Your task to perform on an android device: Search for hotels in Chicago Image 0: 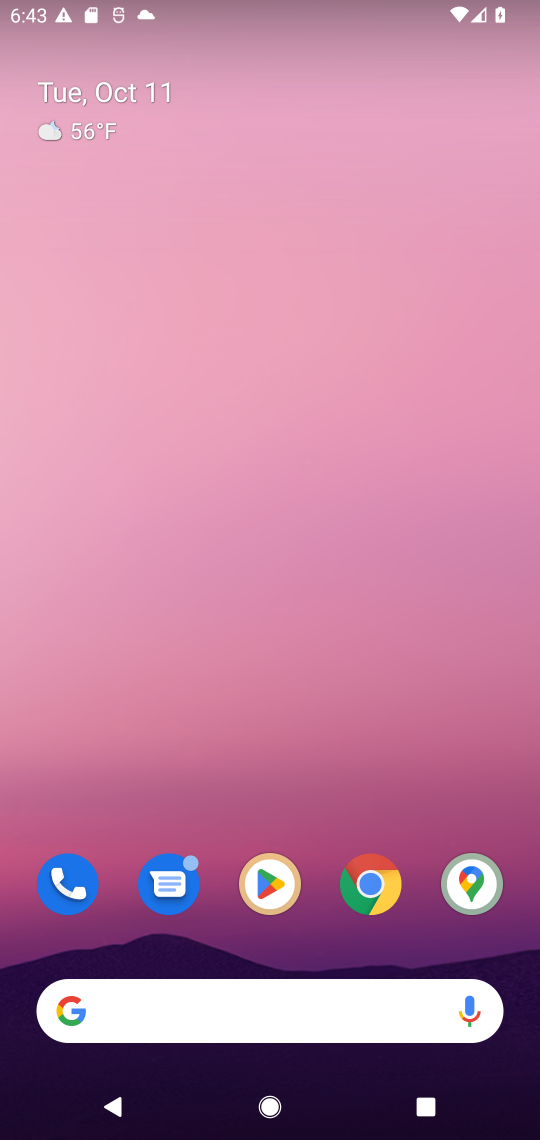
Step 0: drag from (323, 902) to (318, 16)
Your task to perform on an android device: Search for hotels in Chicago Image 1: 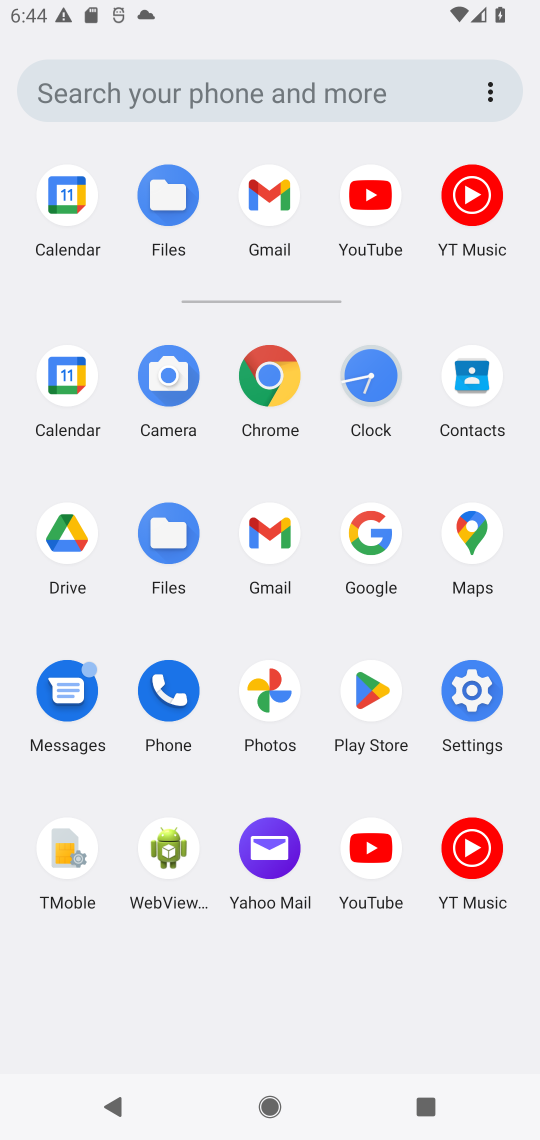
Step 1: click (267, 365)
Your task to perform on an android device: Search for hotels in Chicago Image 2: 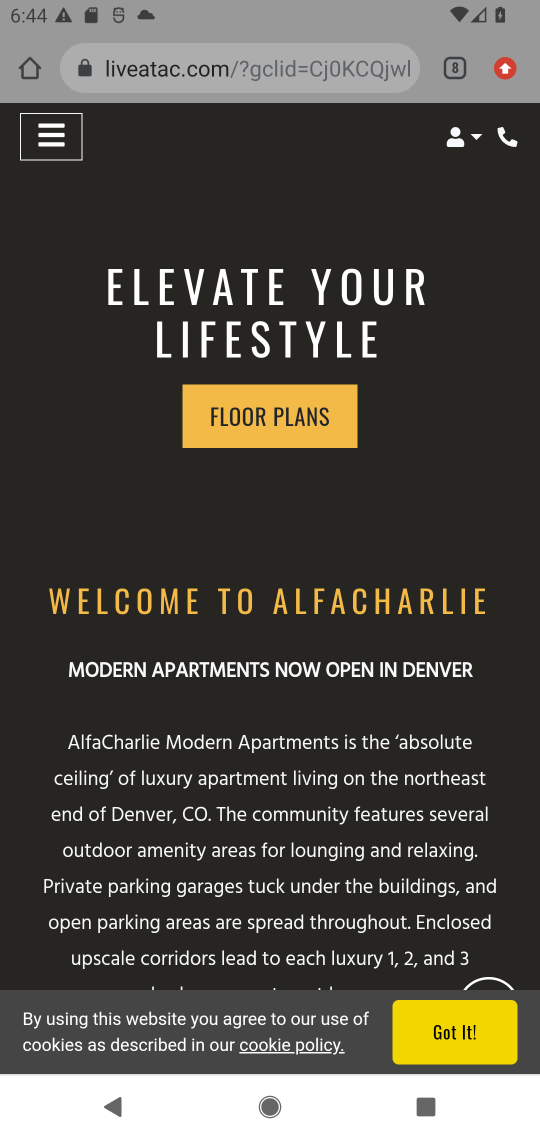
Step 2: drag from (510, 72) to (344, 224)
Your task to perform on an android device: Search for hotels in Chicago Image 3: 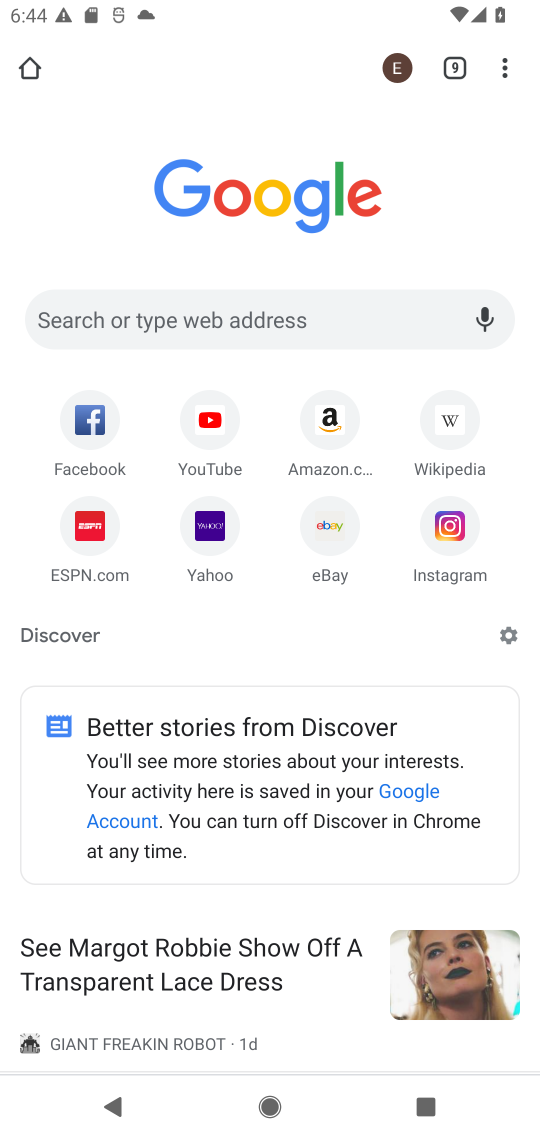
Step 3: click (285, 314)
Your task to perform on an android device: Search for hotels in Chicago Image 4: 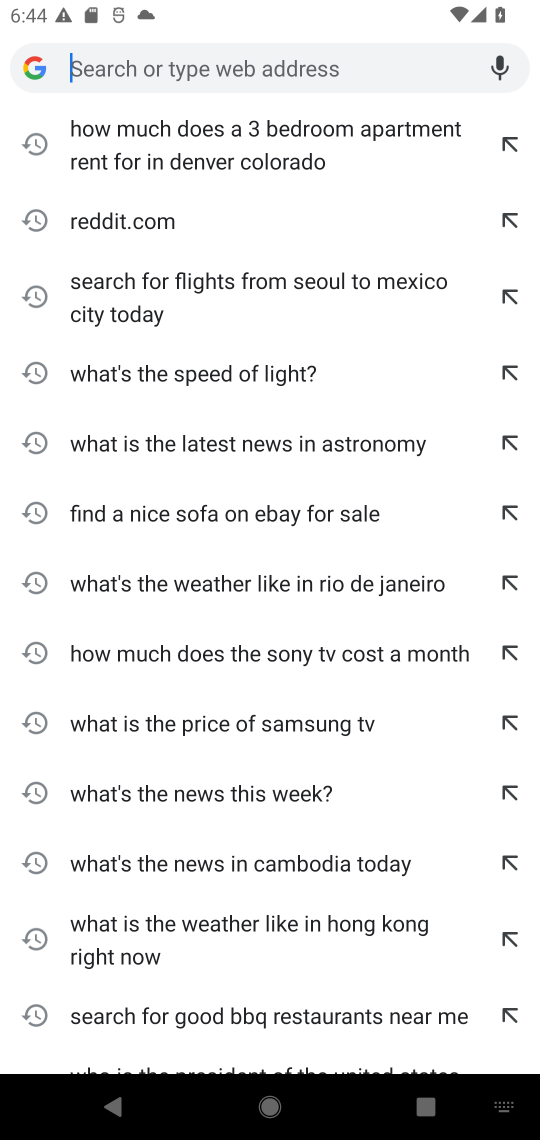
Step 4: type "hotels in Chicago"
Your task to perform on an android device: Search for hotels in Chicago Image 5: 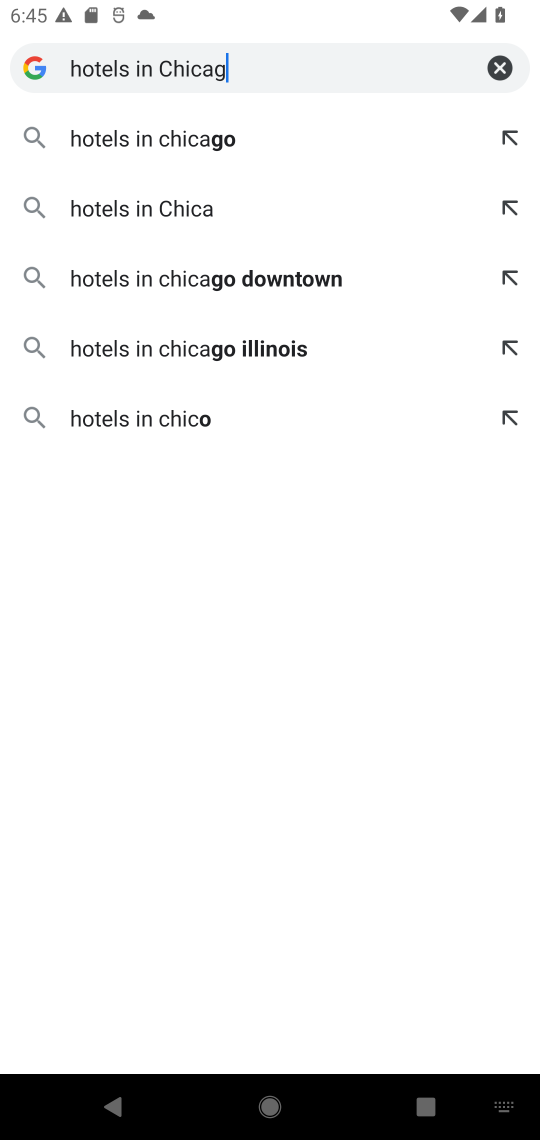
Step 5: type ""
Your task to perform on an android device: Search for hotels in Chicago Image 6: 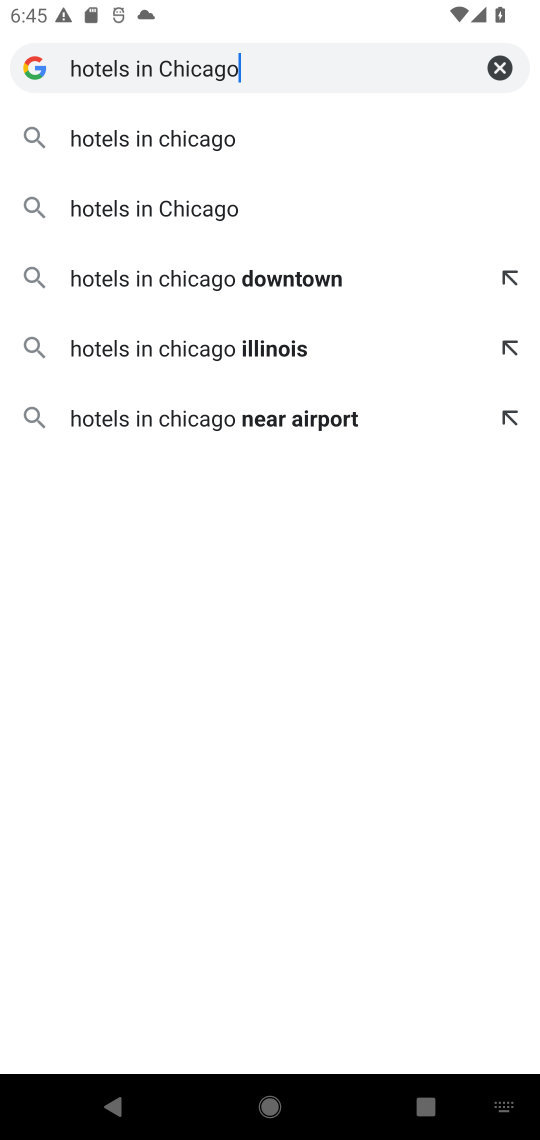
Step 6: click (203, 138)
Your task to perform on an android device: Search for hotels in Chicago Image 7: 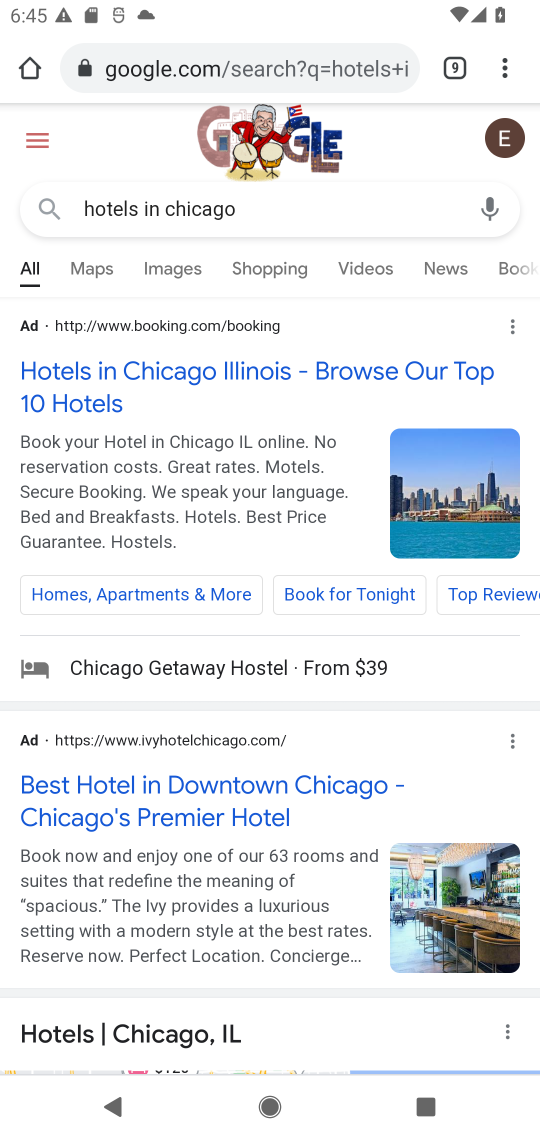
Step 7: click (142, 380)
Your task to perform on an android device: Search for hotels in Chicago Image 8: 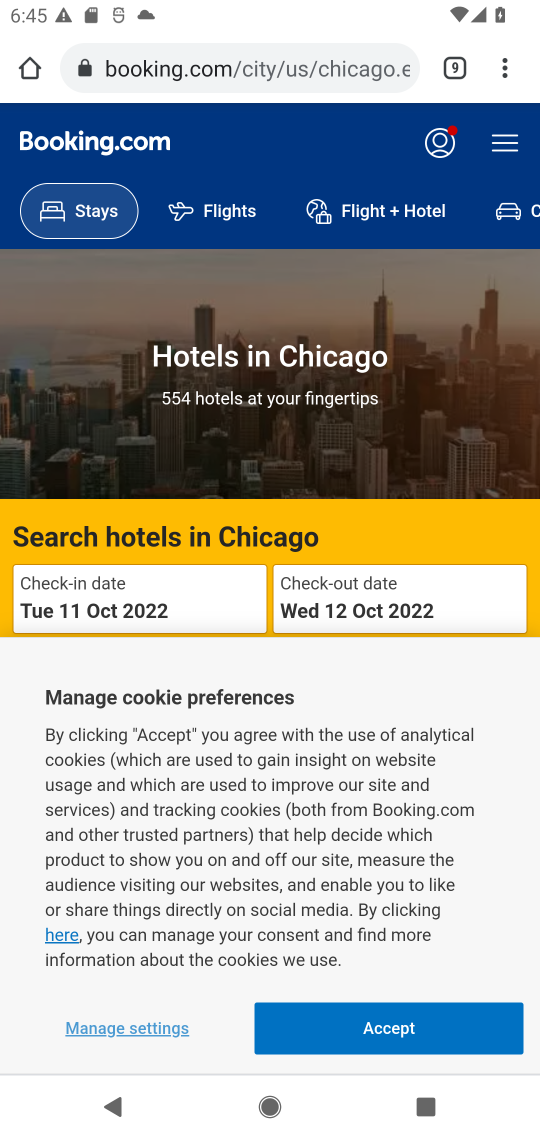
Step 8: task complete